Your task to perform on an android device: set default search engine in the chrome app Image 0: 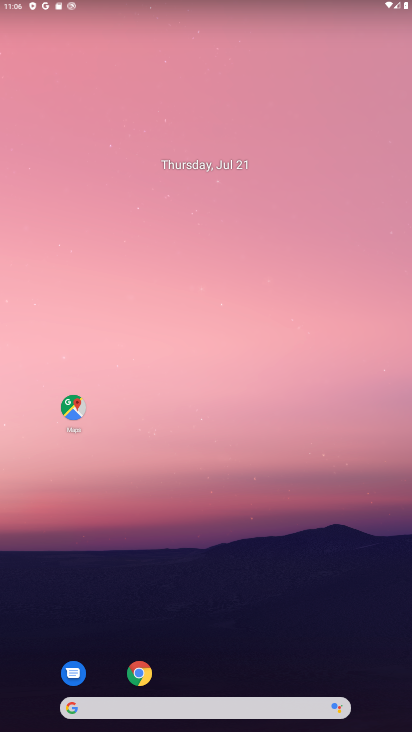
Step 0: press home button
Your task to perform on an android device: set default search engine in the chrome app Image 1: 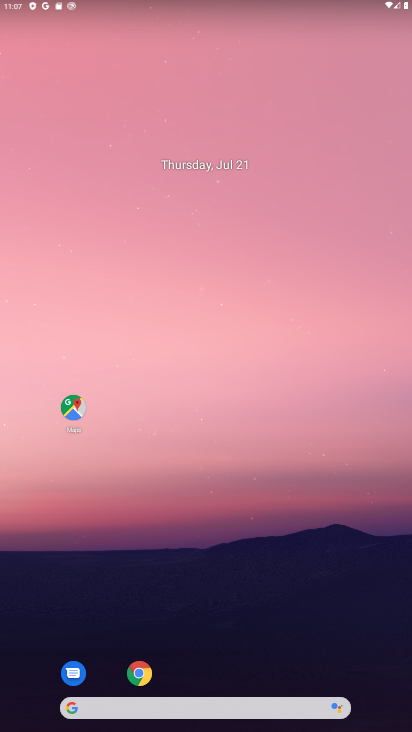
Step 1: click (141, 674)
Your task to perform on an android device: set default search engine in the chrome app Image 2: 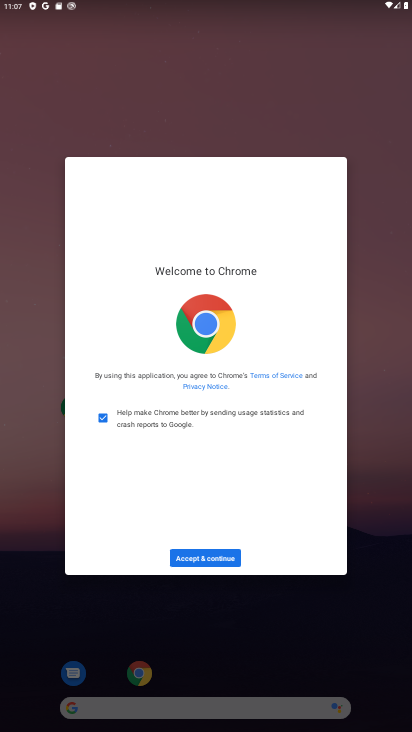
Step 2: click (198, 554)
Your task to perform on an android device: set default search engine in the chrome app Image 3: 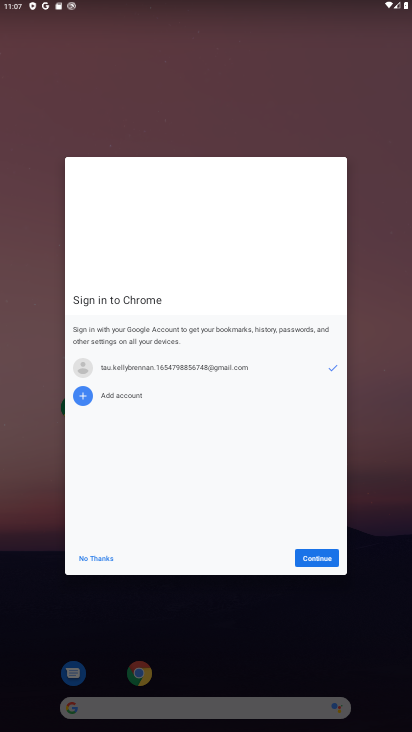
Step 3: click (320, 558)
Your task to perform on an android device: set default search engine in the chrome app Image 4: 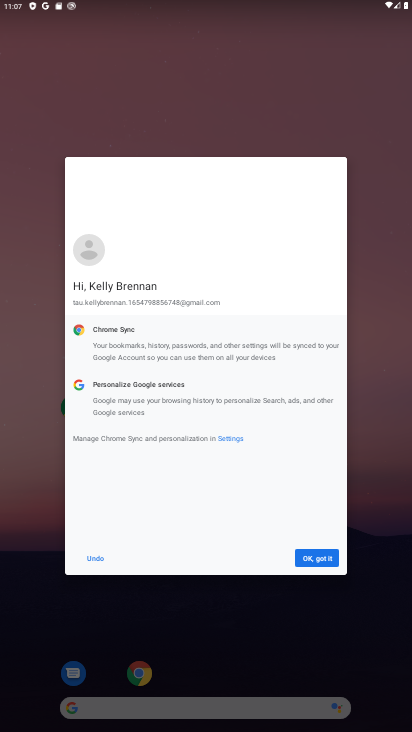
Step 4: click (311, 554)
Your task to perform on an android device: set default search engine in the chrome app Image 5: 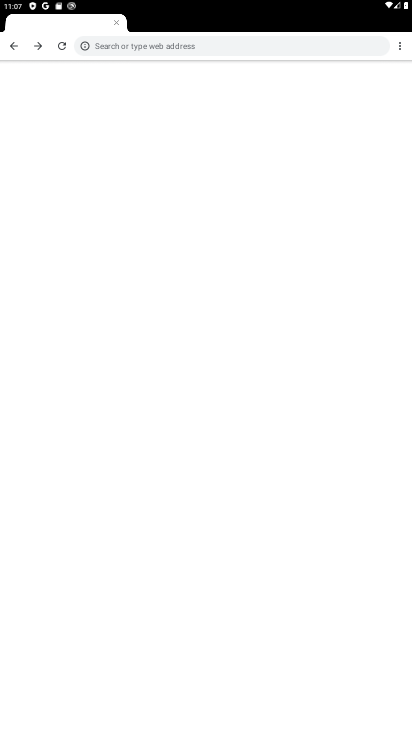
Step 5: click (324, 557)
Your task to perform on an android device: set default search engine in the chrome app Image 6: 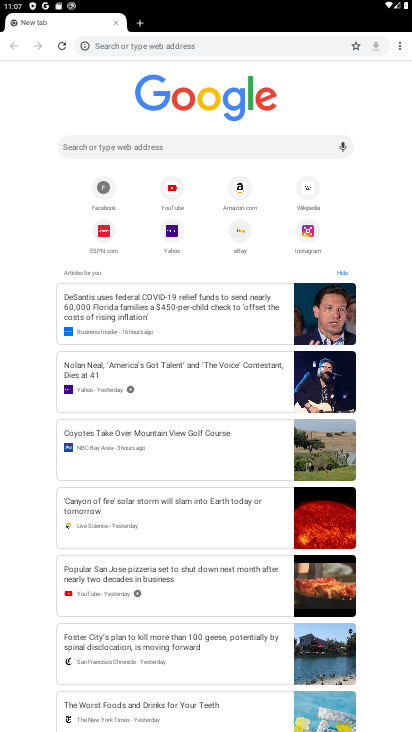
Step 6: click (399, 49)
Your task to perform on an android device: set default search engine in the chrome app Image 7: 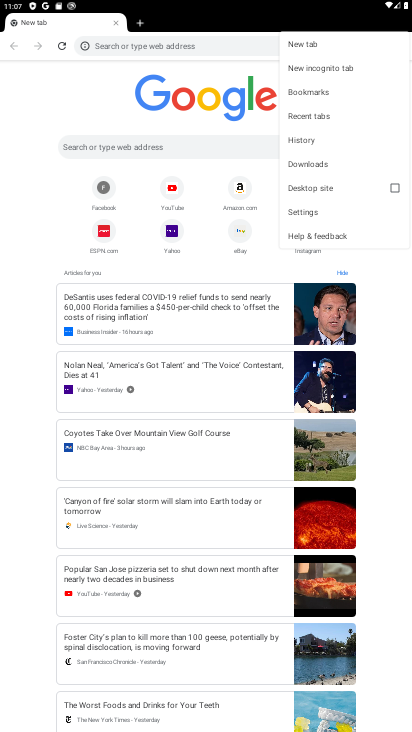
Step 7: click (311, 212)
Your task to perform on an android device: set default search engine in the chrome app Image 8: 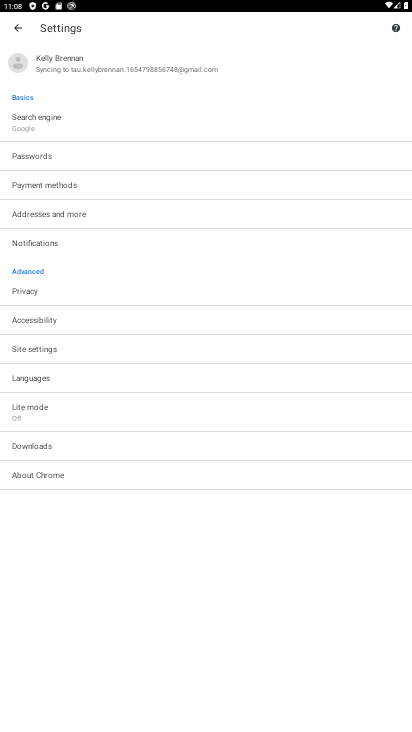
Step 8: click (72, 121)
Your task to perform on an android device: set default search engine in the chrome app Image 9: 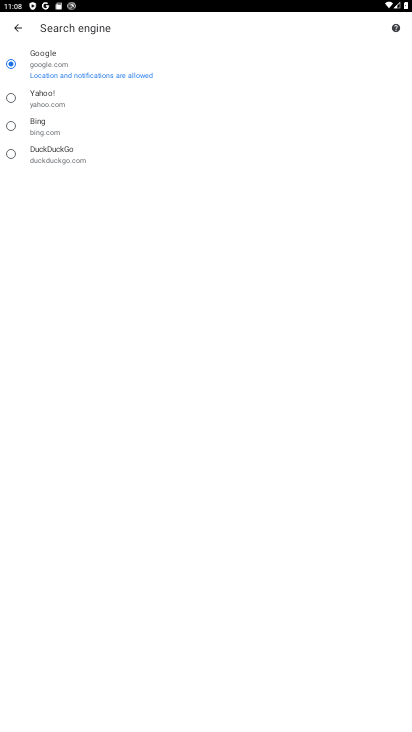
Step 9: click (8, 122)
Your task to perform on an android device: set default search engine in the chrome app Image 10: 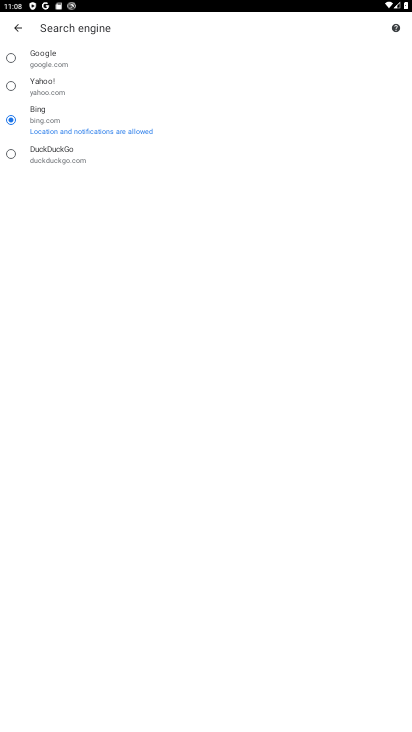
Step 10: task complete